Your task to perform on an android device: toggle translation in the chrome app Image 0: 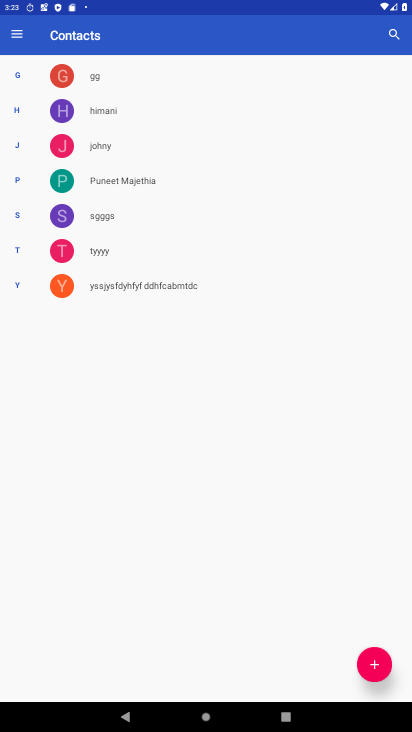
Step 0: press home button
Your task to perform on an android device: toggle translation in the chrome app Image 1: 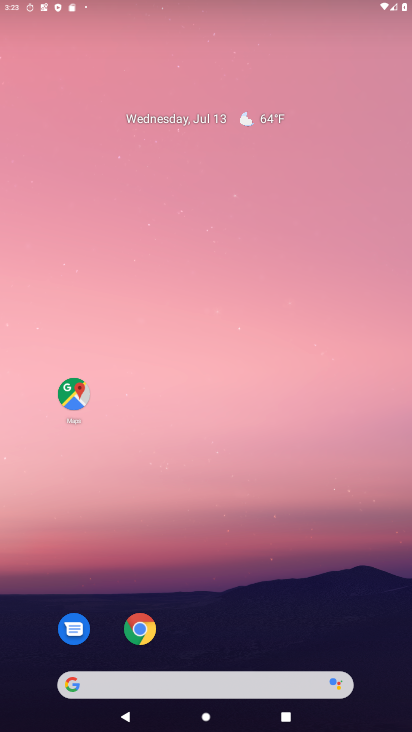
Step 1: drag from (270, 678) to (310, 19)
Your task to perform on an android device: toggle translation in the chrome app Image 2: 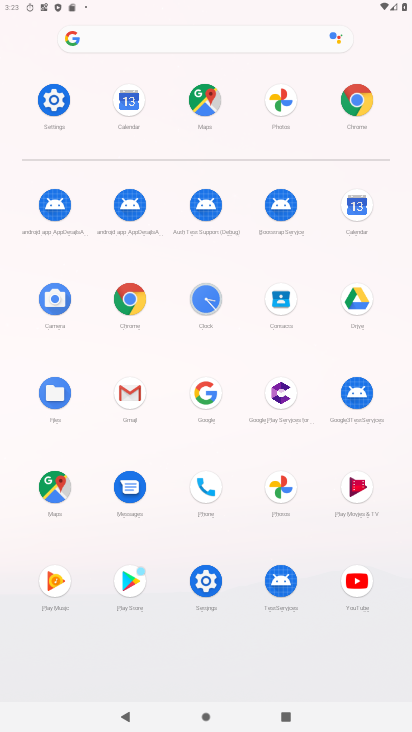
Step 2: click (131, 295)
Your task to perform on an android device: toggle translation in the chrome app Image 3: 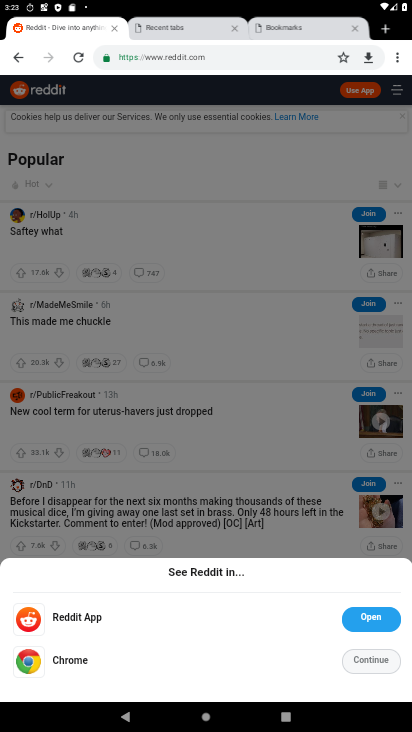
Step 3: drag from (392, 58) to (279, 385)
Your task to perform on an android device: toggle translation in the chrome app Image 4: 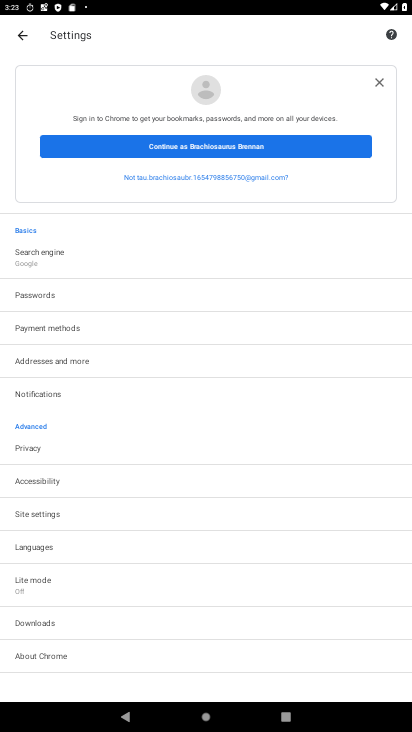
Step 4: click (61, 552)
Your task to perform on an android device: toggle translation in the chrome app Image 5: 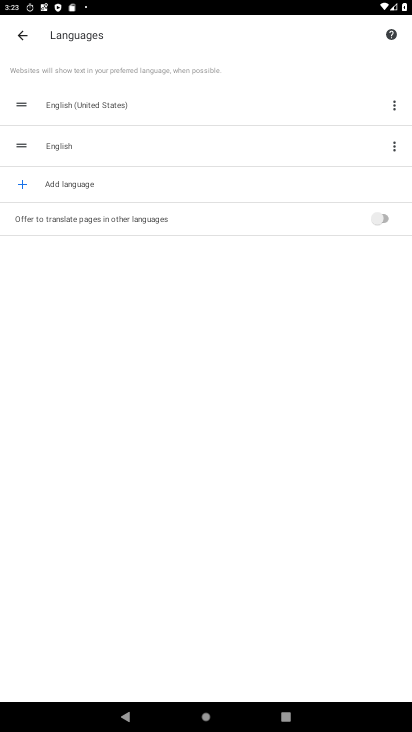
Step 5: click (378, 220)
Your task to perform on an android device: toggle translation in the chrome app Image 6: 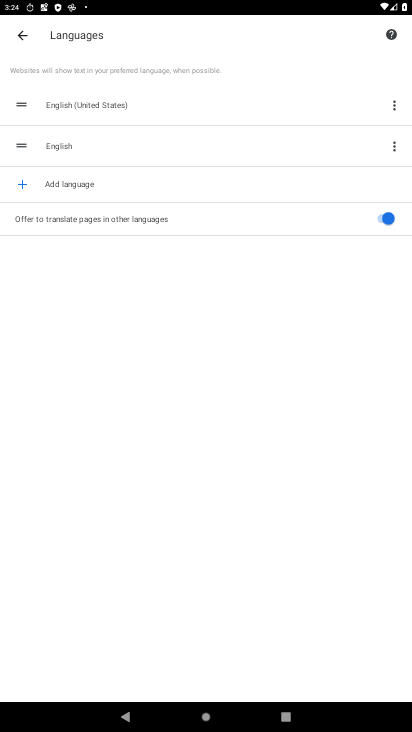
Step 6: task complete